Your task to perform on an android device: choose inbox layout in the gmail app Image 0: 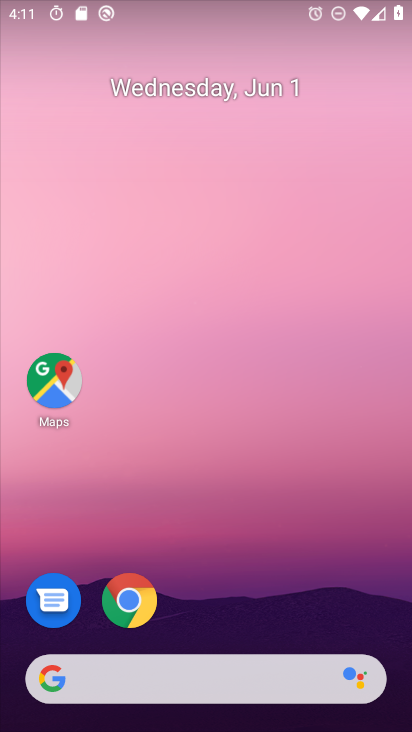
Step 0: drag from (195, 618) to (206, 386)
Your task to perform on an android device: choose inbox layout in the gmail app Image 1: 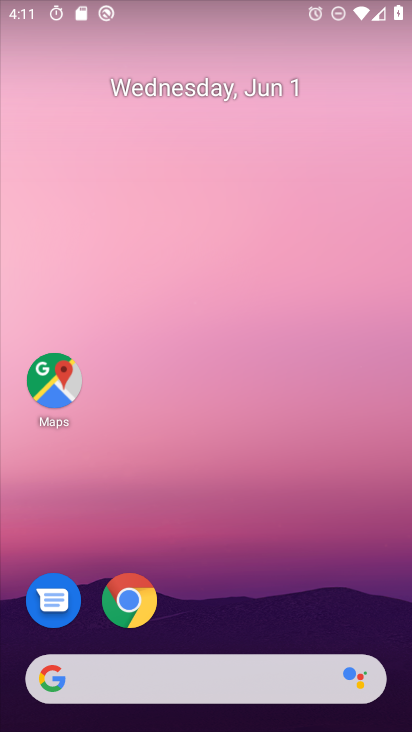
Step 1: drag from (216, 630) to (216, 148)
Your task to perform on an android device: choose inbox layout in the gmail app Image 2: 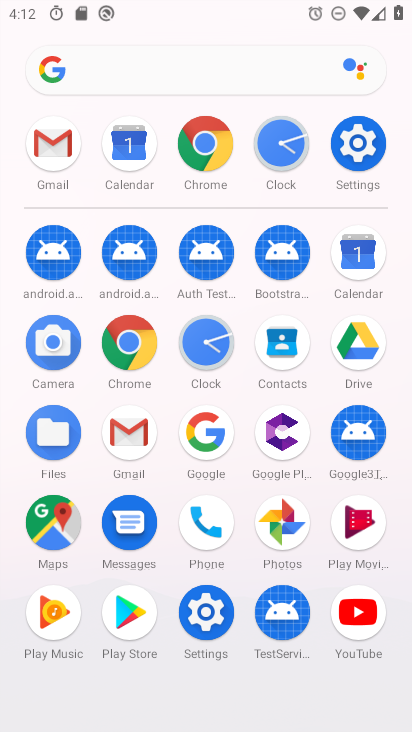
Step 2: click (44, 153)
Your task to perform on an android device: choose inbox layout in the gmail app Image 3: 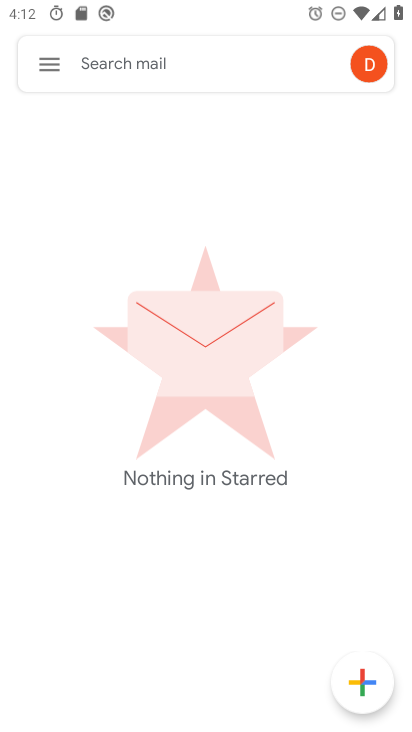
Step 3: click (45, 70)
Your task to perform on an android device: choose inbox layout in the gmail app Image 4: 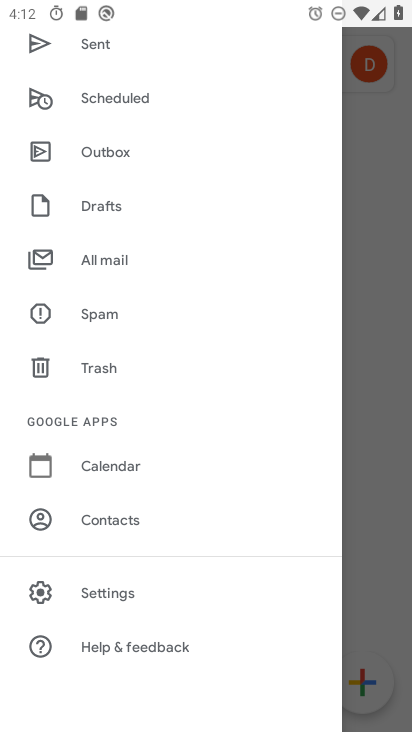
Step 4: click (117, 592)
Your task to perform on an android device: choose inbox layout in the gmail app Image 5: 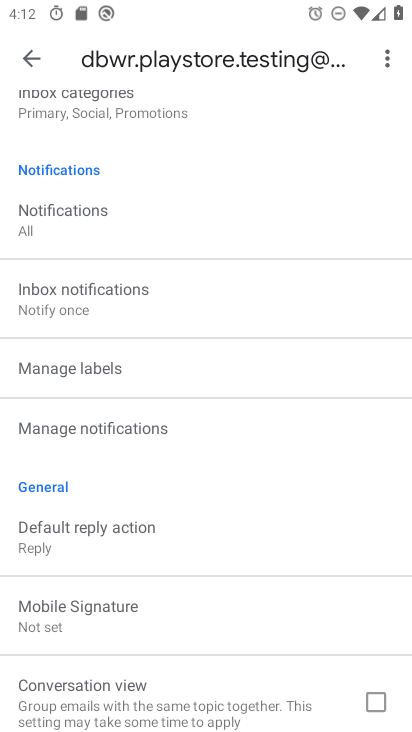
Step 5: click (121, 464)
Your task to perform on an android device: choose inbox layout in the gmail app Image 6: 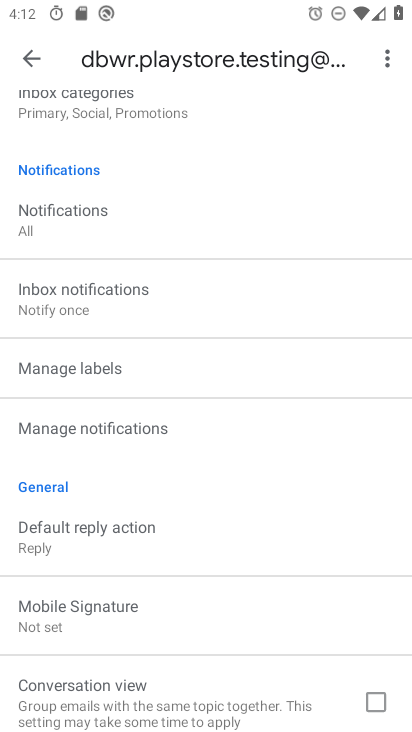
Step 6: drag from (120, 229) to (120, 392)
Your task to perform on an android device: choose inbox layout in the gmail app Image 7: 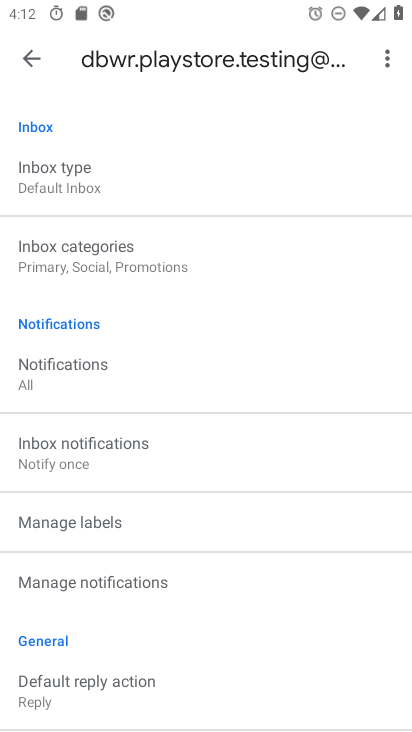
Step 7: click (54, 184)
Your task to perform on an android device: choose inbox layout in the gmail app Image 8: 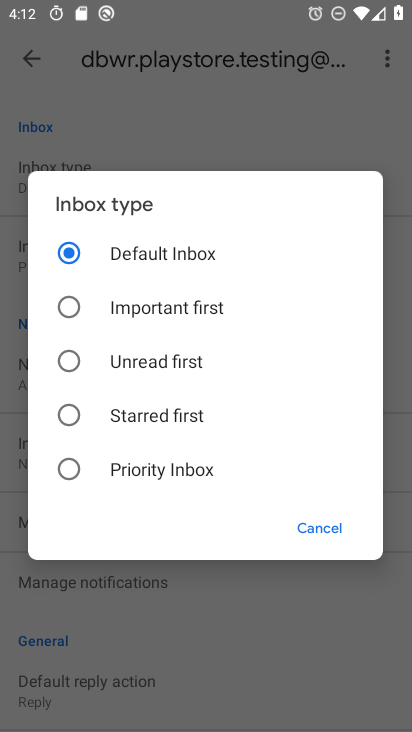
Step 8: click (65, 475)
Your task to perform on an android device: choose inbox layout in the gmail app Image 9: 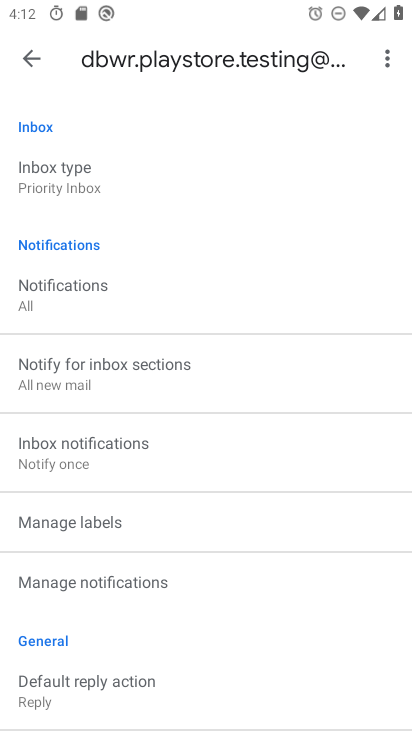
Step 9: task complete